Your task to perform on an android device: Search for "custom wallet" on Etsy. Image 0: 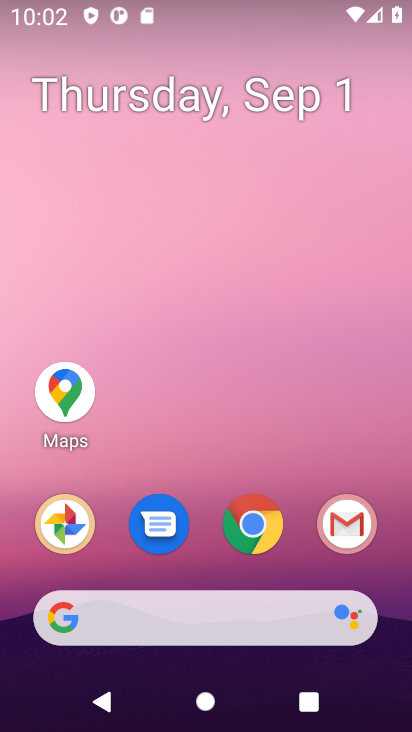
Step 0: drag from (390, 569) to (373, 109)
Your task to perform on an android device: Search for "custom wallet" on Etsy. Image 1: 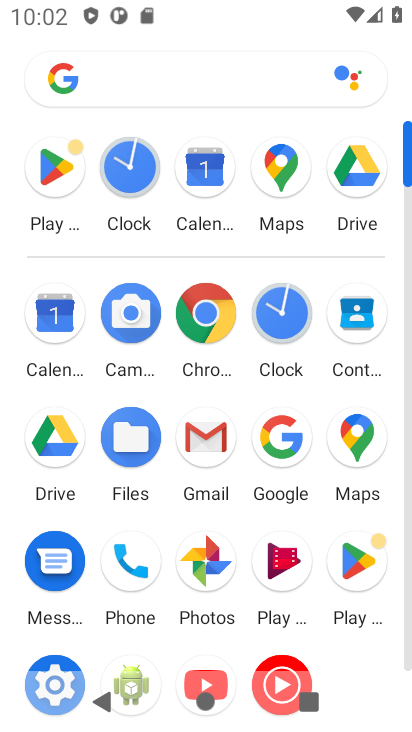
Step 1: click (209, 309)
Your task to perform on an android device: Search for "custom wallet" on Etsy. Image 2: 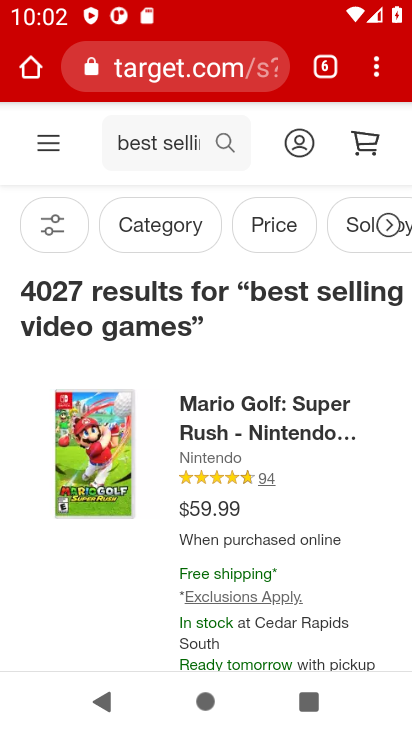
Step 2: click (196, 63)
Your task to perform on an android device: Search for "custom wallet" on Etsy. Image 3: 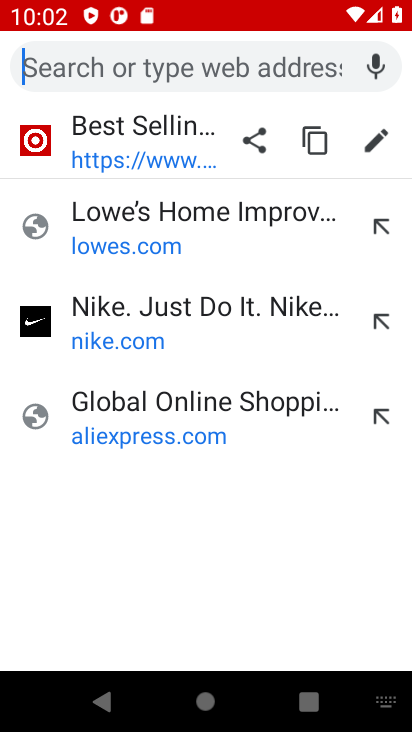
Step 3: type "etsy"
Your task to perform on an android device: Search for "custom wallet" on Etsy. Image 4: 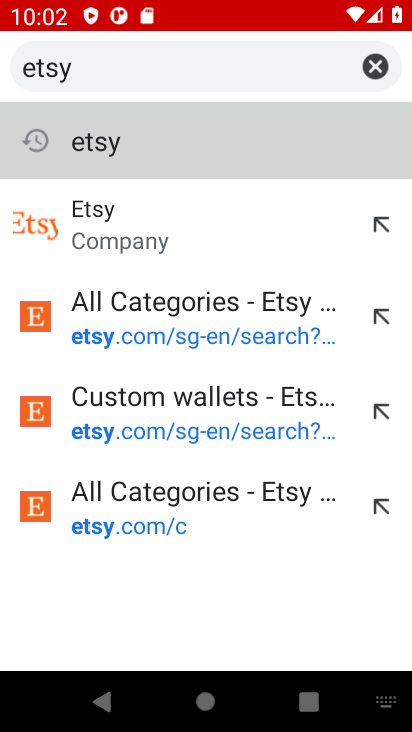
Step 4: click (158, 141)
Your task to perform on an android device: Search for "custom wallet" on Etsy. Image 5: 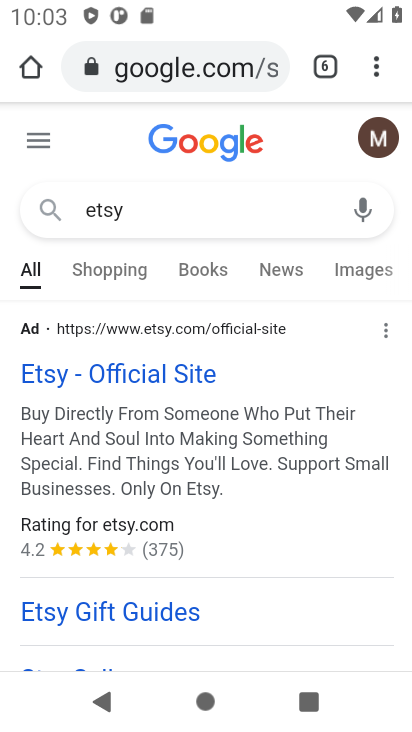
Step 5: click (158, 373)
Your task to perform on an android device: Search for "custom wallet" on Etsy. Image 6: 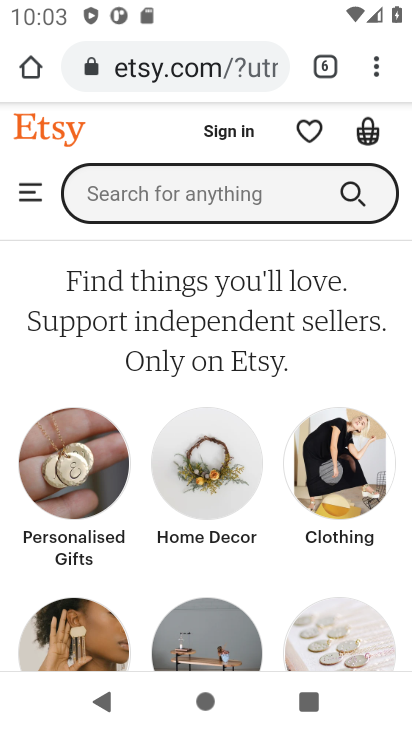
Step 6: click (206, 195)
Your task to perform on an android device: Search for "custom wallet" on Etsy. Image 7: 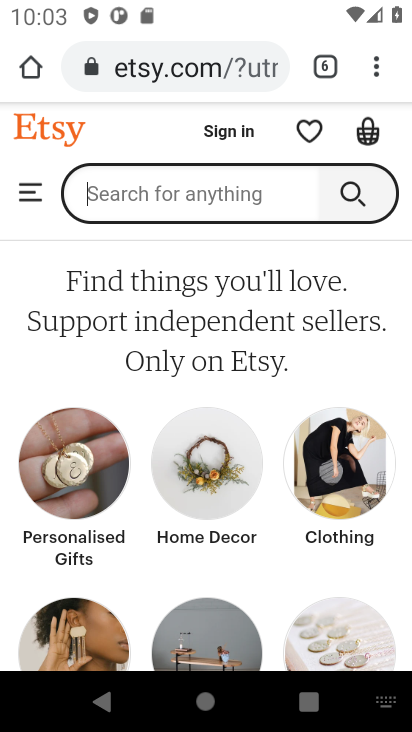
Step 7: type "custom wallet"
Your task to perform on an android device: Search for "custom wallet" on Etsy. Image 8: 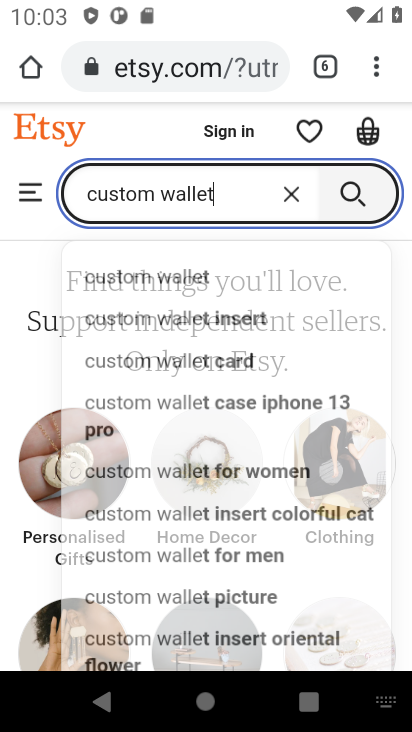
Step 8: press enter
Your task to perform on an android device: Search for "custom wallet" on Etsy. Image 9: 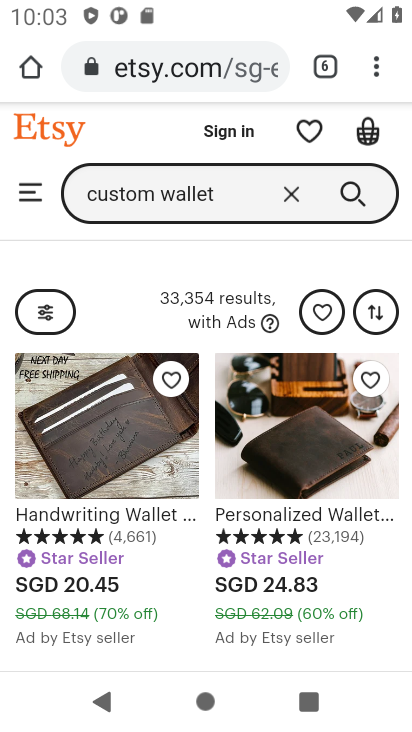
Step 9: task complete